Your task to perform on an android device: Check the news Image 0: 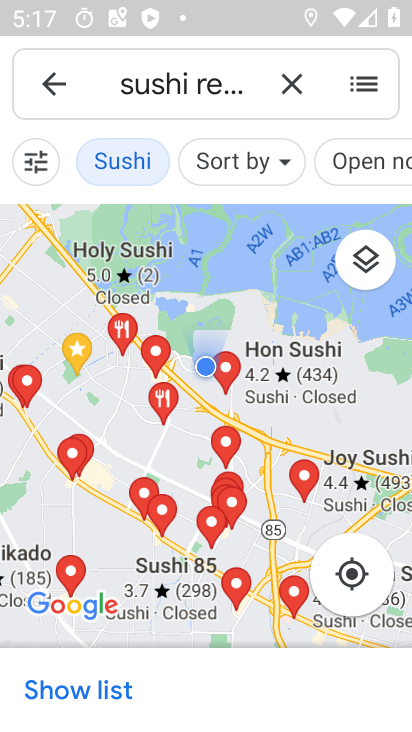
Step 0: press home button
Your task to perform on an android device: Check the news Image 1: 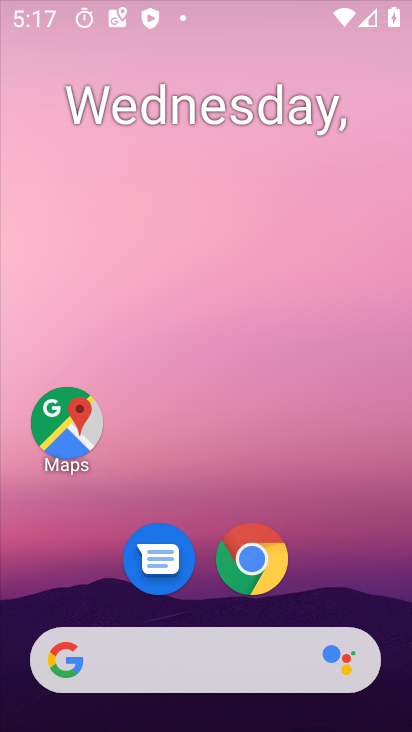
Step 1: drag from (326, 488) to (209, 80)
Your task to perform on an android device: Check the news Image 2: 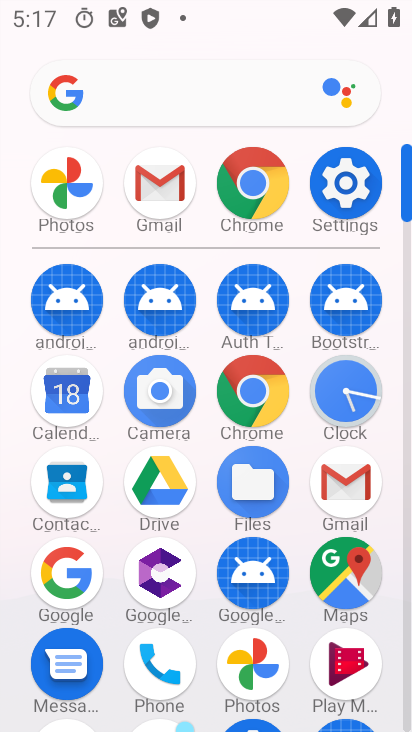
Step 2: click (80, 578)
Your task to perform on an android device: Check the news Image 3: 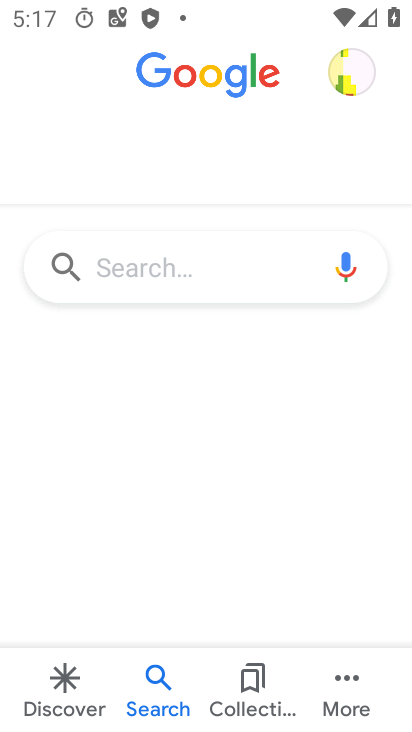
Step 3: click (152, 260)
Your task to perform on an android device: Check the news Image 4: 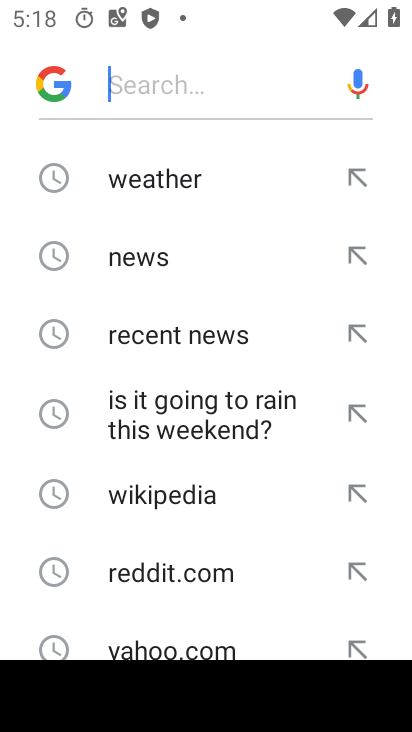
Step 4: click (166, 238)
Your task to perform on an android device: Check the news Image 5: 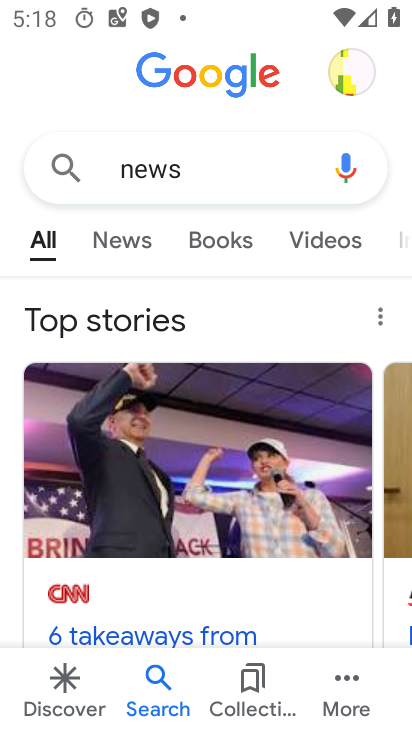
Step 5: task complete